Your task to perform on an android device: install app "WhatsApp Messenger" Image 0: 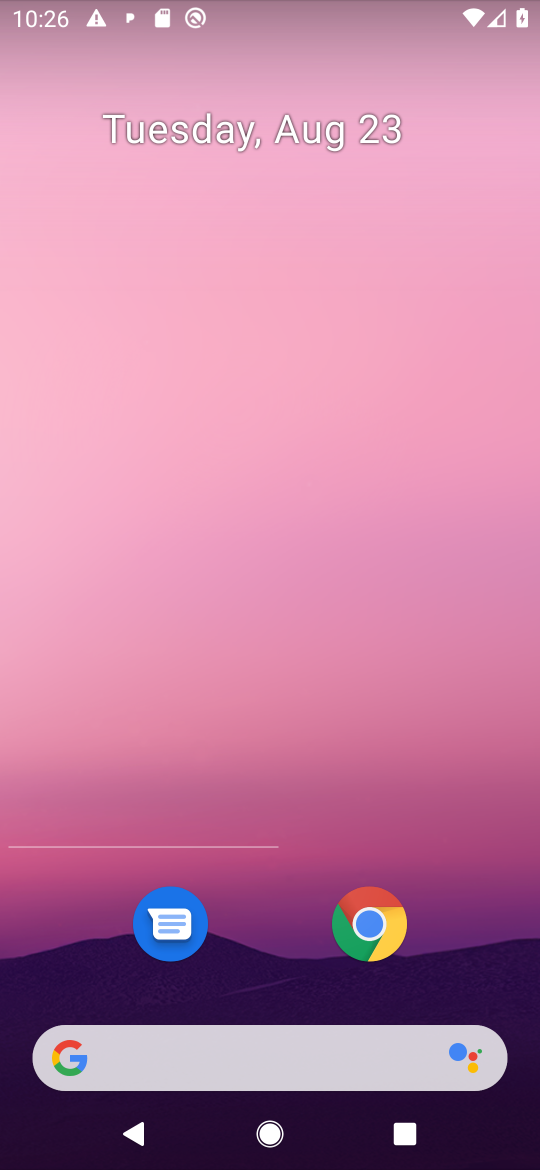
Step 0: press home button
Your task to perform on an android device: install app "WhatsApp Messenger" Image 1: 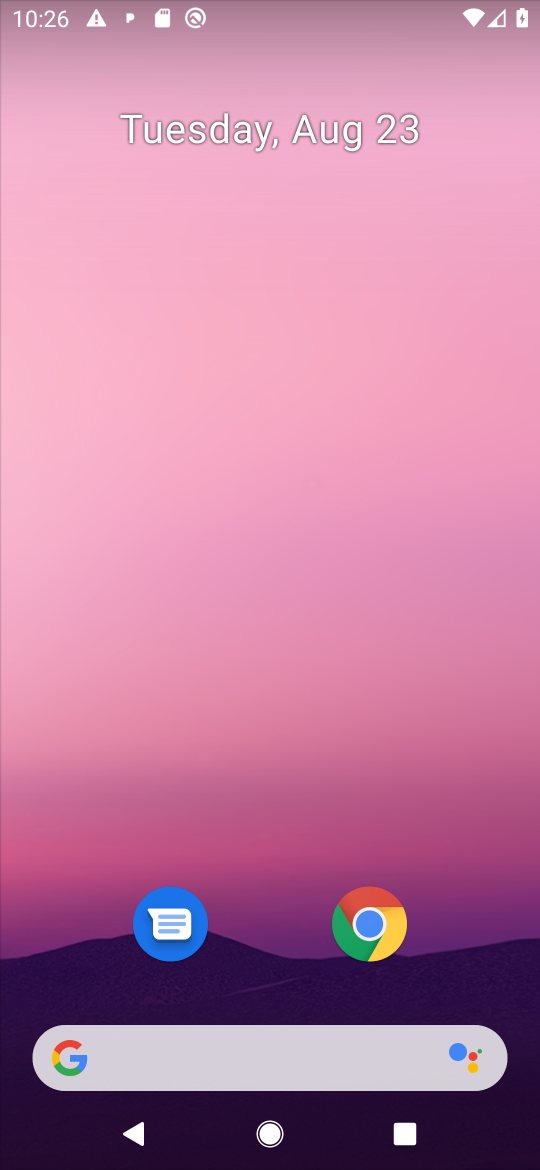
Step 1: drag from (449, 903) to (460, 96)
Your task to perform on an android device: install app "WhatsApp Messenger" Image 2: 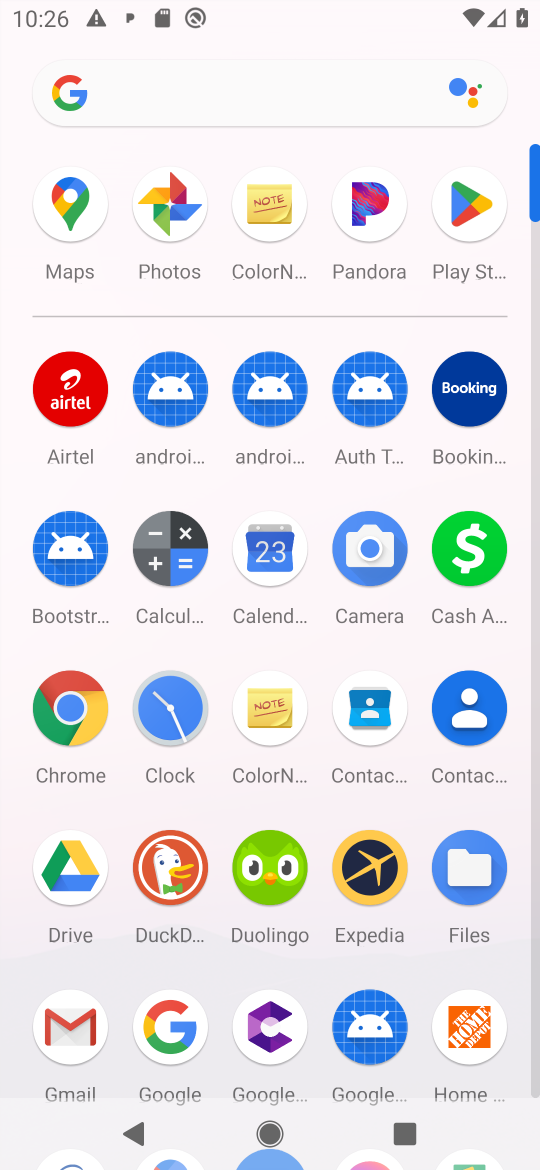
Step 2: click (467, 192)
Your task to perform on an android device: install app "WhatsApp Messenger" Image 3: 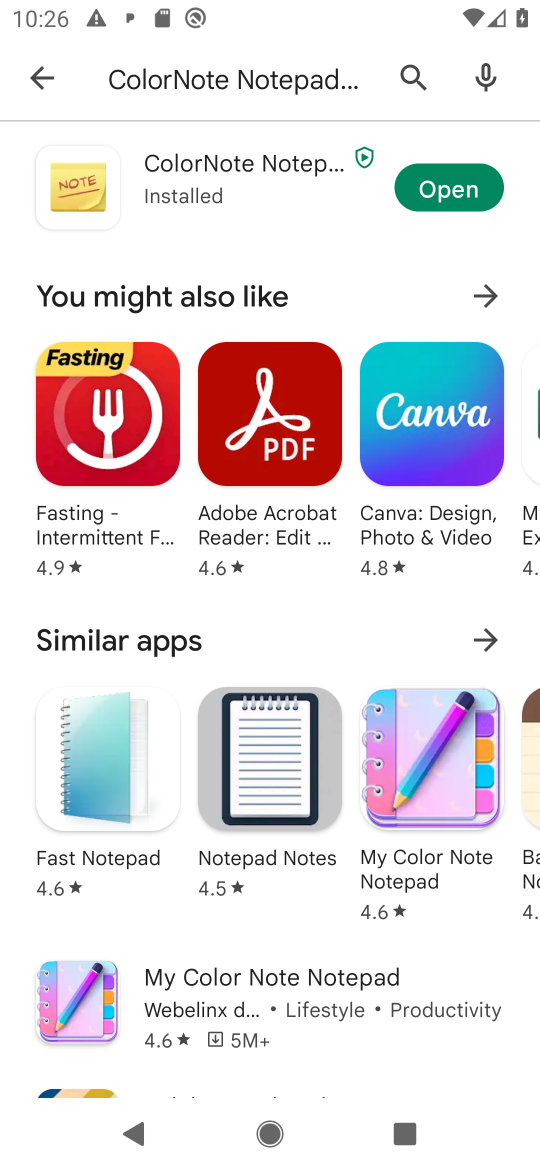
Step 3: press back button
Your task to perform on an android device: install app "WhatsApp Messenger" Image 4: 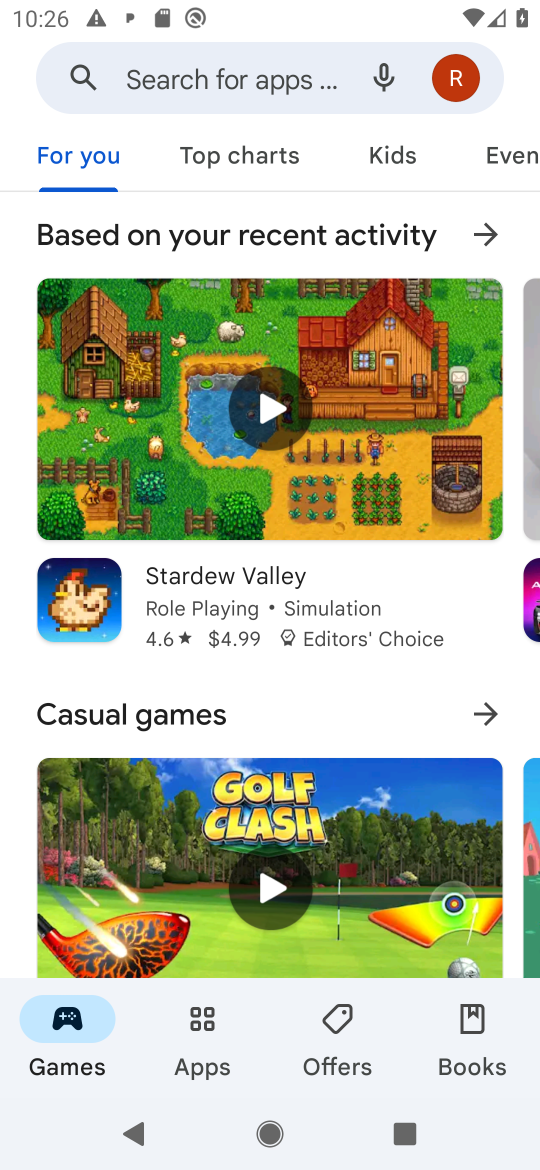
Step 4: click (244, 80)
Your task to perform on an android device: install app "WhatsApp Messenger" Image 5: 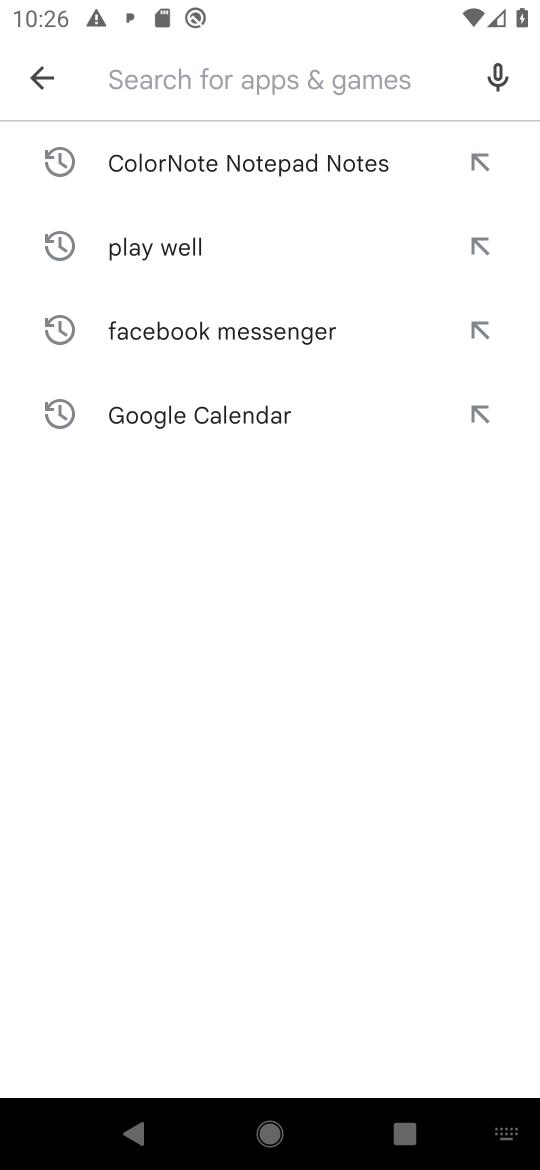
Step 5: type "WhatsApp Messenger"
Your task to perform on an android device: install app "WhatsApp Messenger" Image 6: 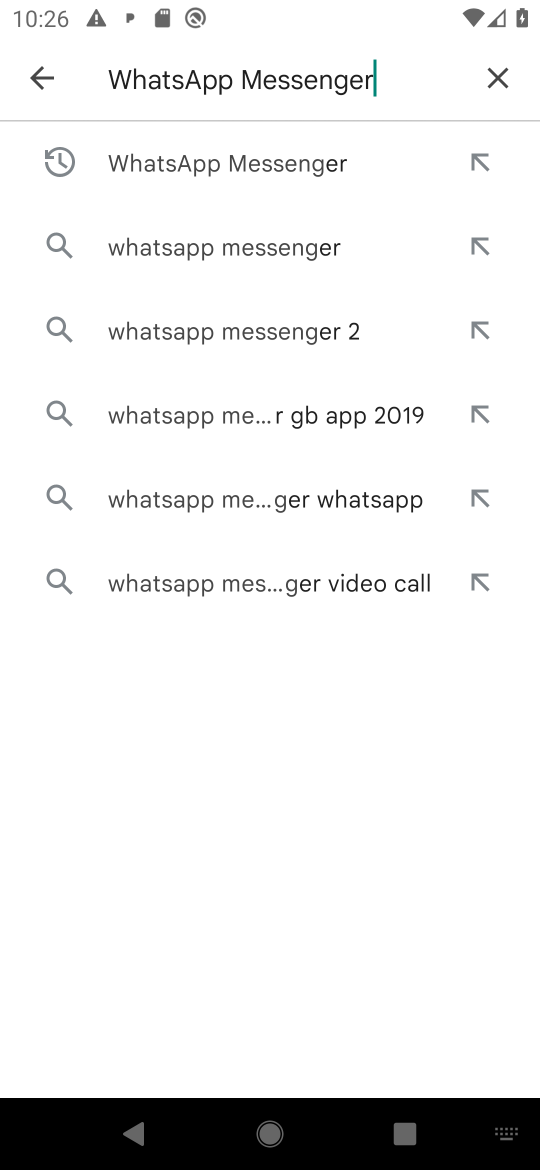
Step 6: press enter
Your task to perform on an android device: install app "WhatsApp Messenger" Image 7: 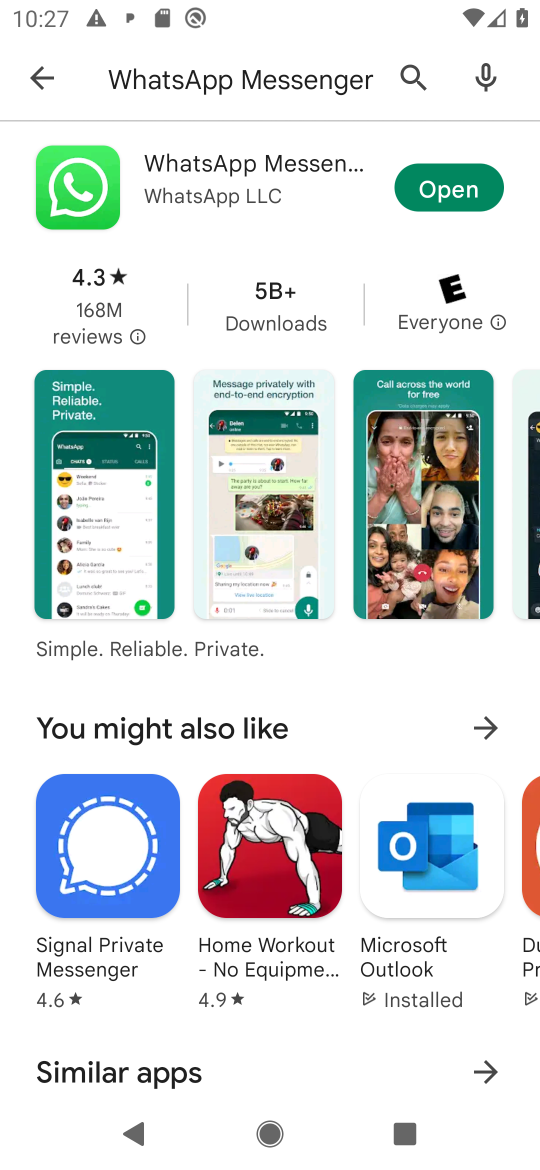
Step 7: task complete